Your task to perform on an android device: Go to internet settings Image 0: 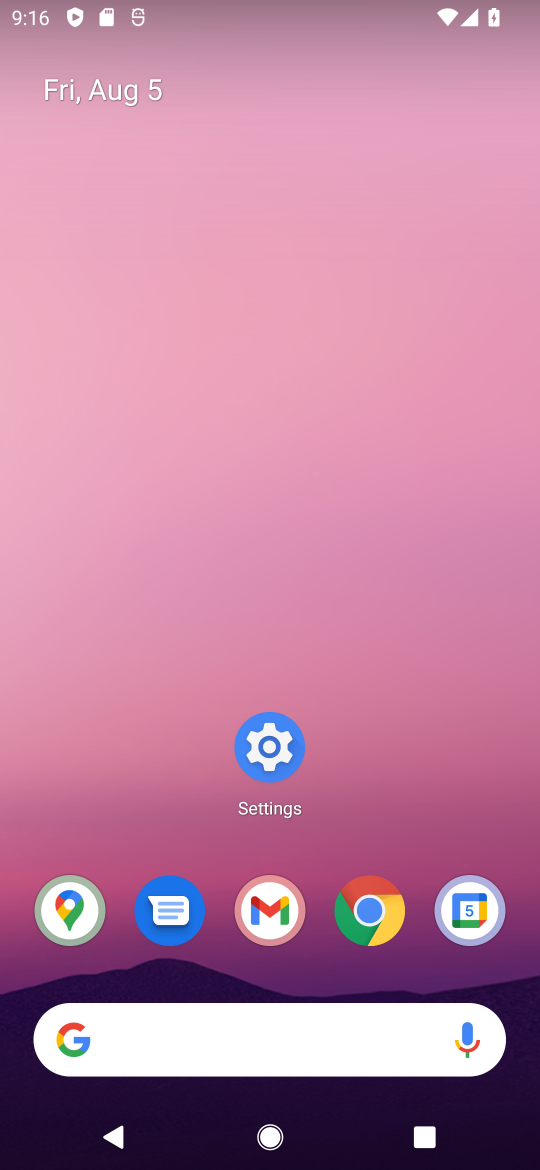
Step 0: press home button
Your task to perform on an android device: Go to internet settings Image 1: 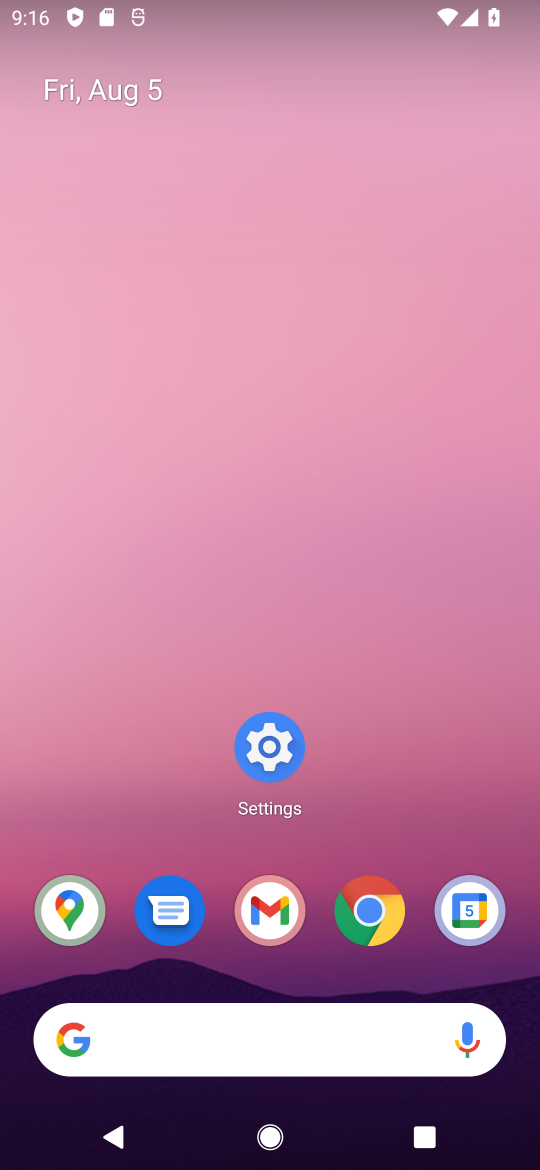
Step 1: click (272, 735)
Your task to perform on an android device: Go to internet settings Image 2: 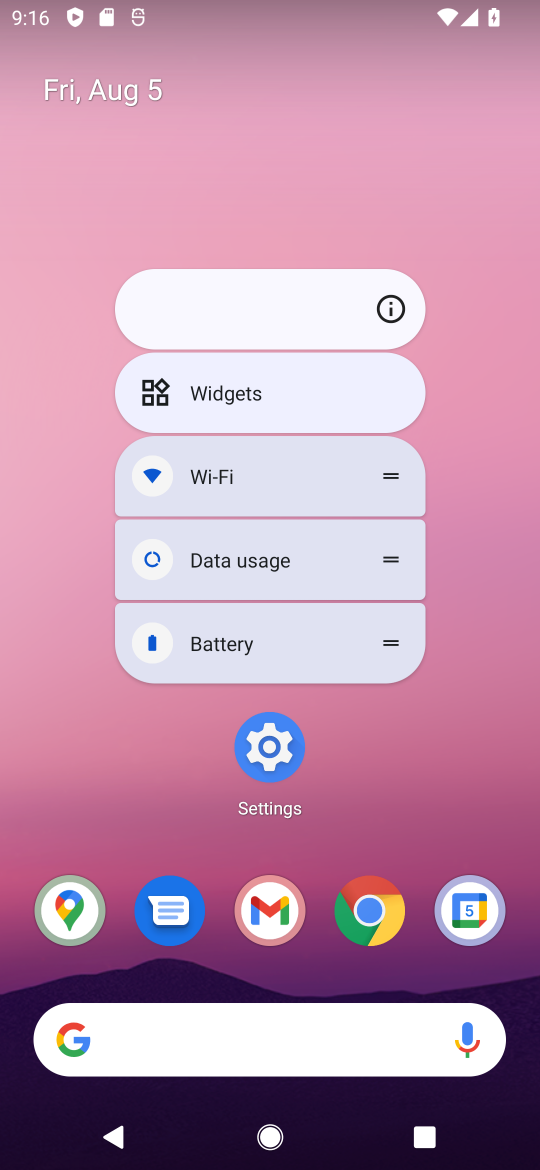
Step 2: click (277, 743)
Your task to perform on an android device: Go to internet settings Image 3: 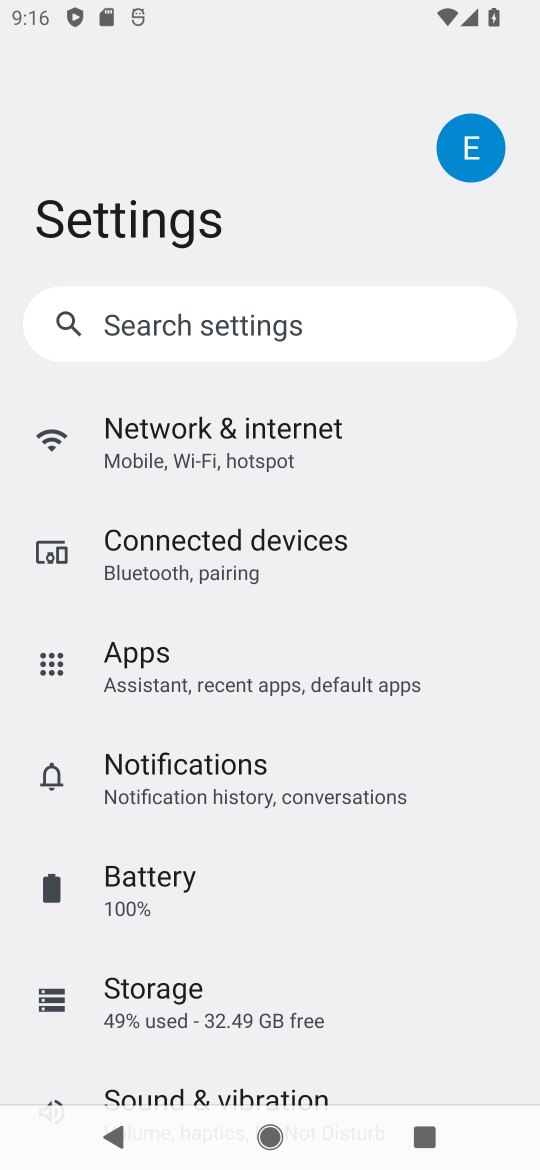
Step 3: click (269, 444)
Your task to perform on an android device: Go to internet settings Image 4: 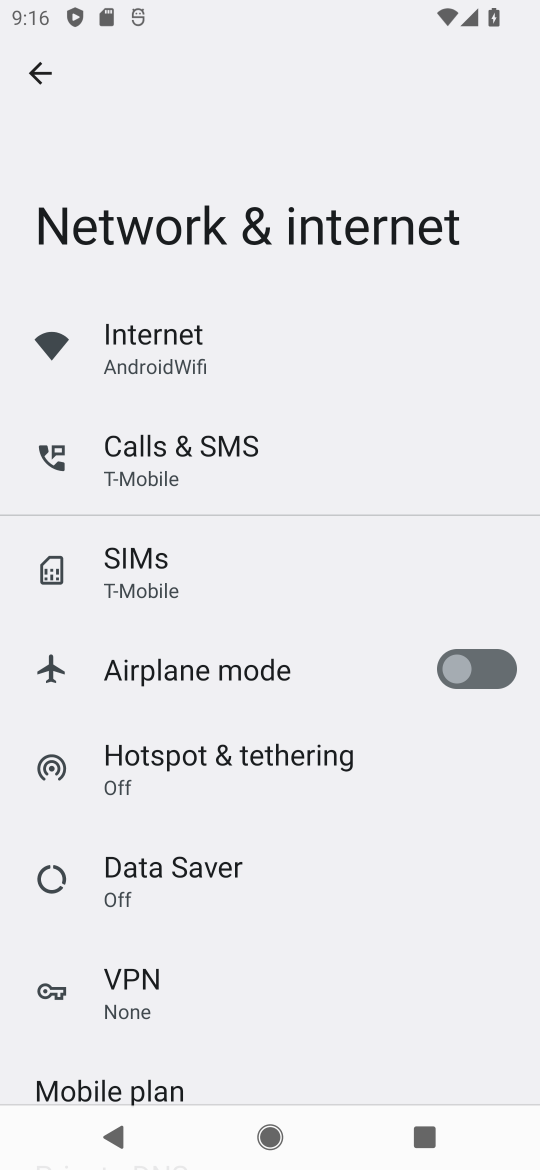
Step 4: click (189, 359)
Your task to perform on an android device: Go to internet settings Image 5: 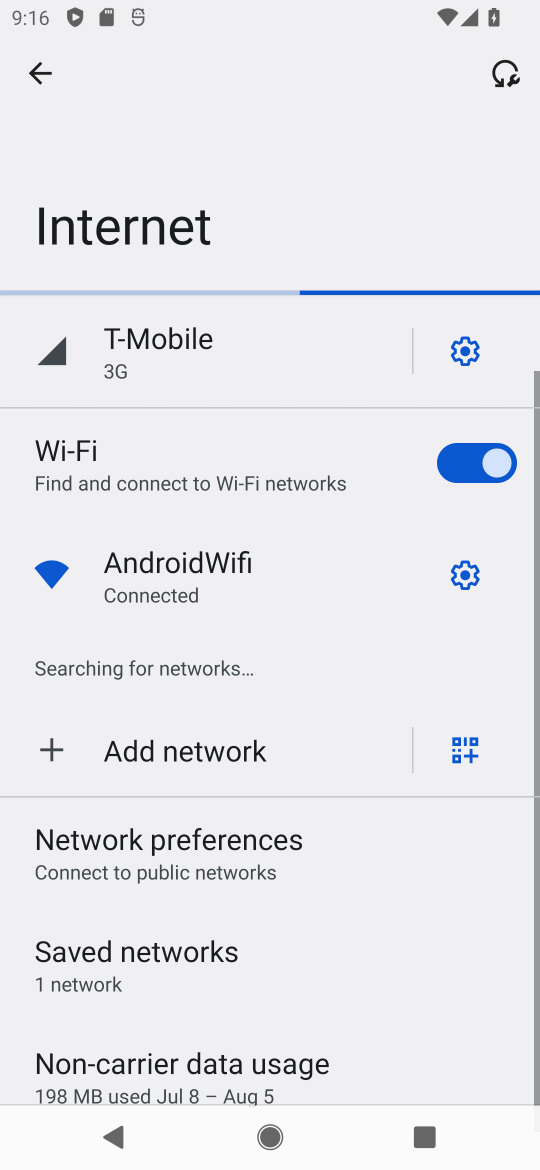
Step 5: task complete